Your task to perform on an android device: open device folders in google photos Image 0: 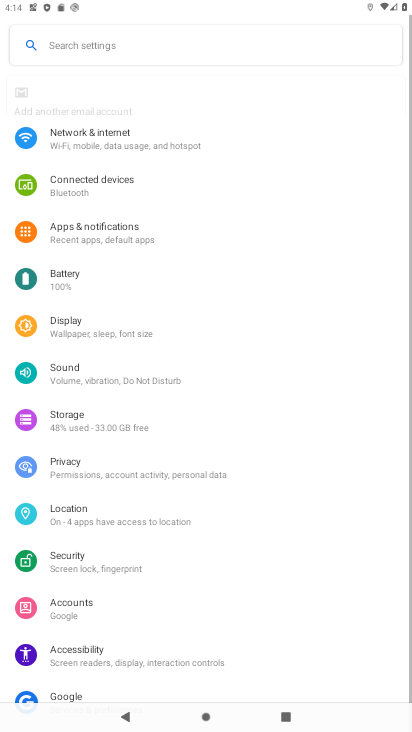
Step 0: press home button
Your task to perform on an android device: open device folders in google photos Image 1: 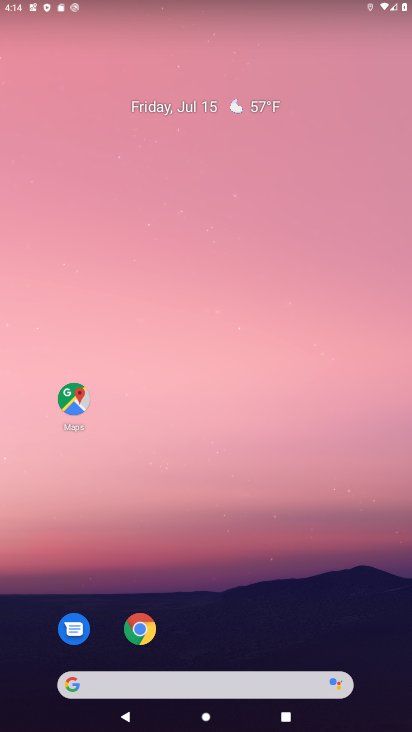
Step 1: drag from (252, 562) to (257, 59)
Your task to perform on an android device: open device folders in google photos Image 2: 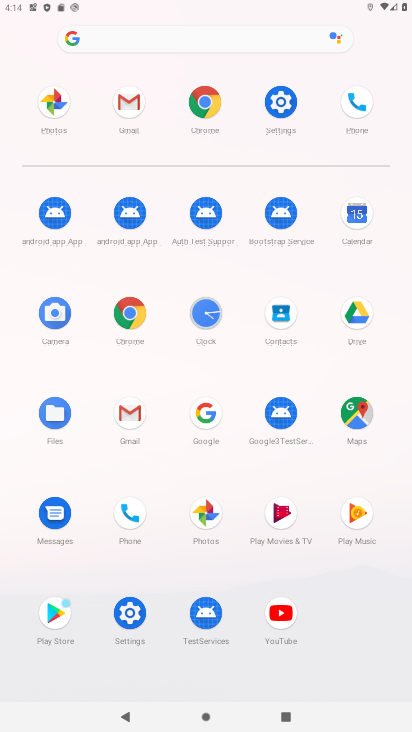
Step 2: click (49, 111)
Your task to perform on an android device: open device folders in google photos Image 3: 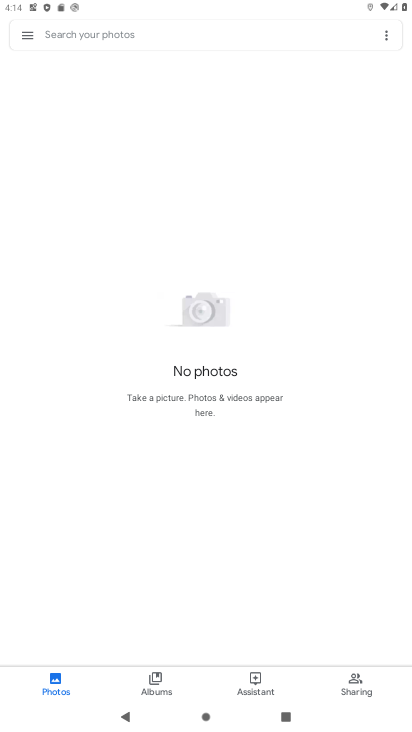
Step 3: click (20, 38)
Your task to perform on an android device: open device folders in google photos Image 4: 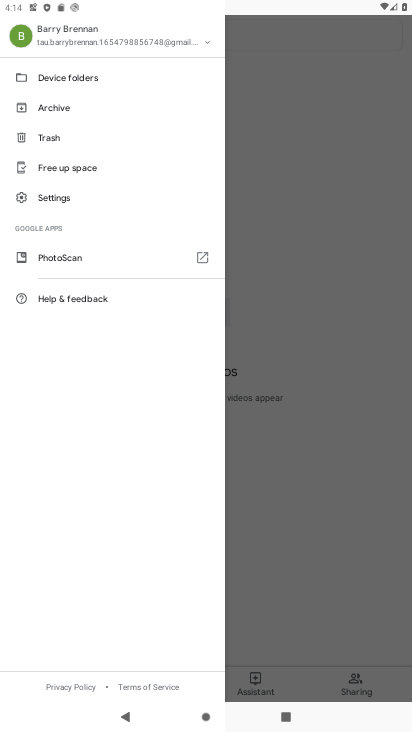
Step 4: click (76, 77)
Your task to perform on an android device: open device folders in google photos Image 5: 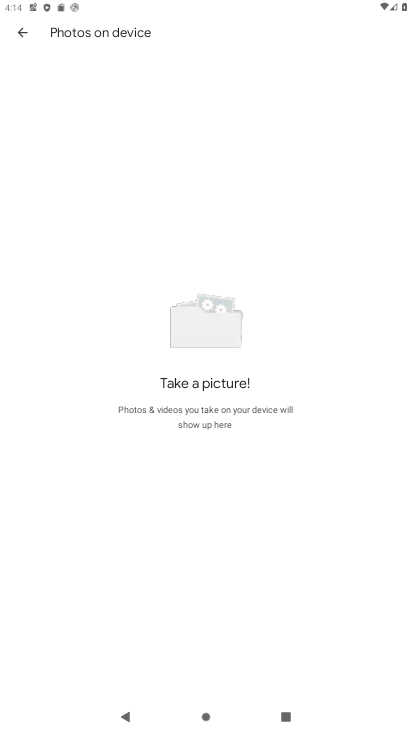
Step 5: task complete